Your task to perform on an android device: Open Chrome and go to settings Image 0: 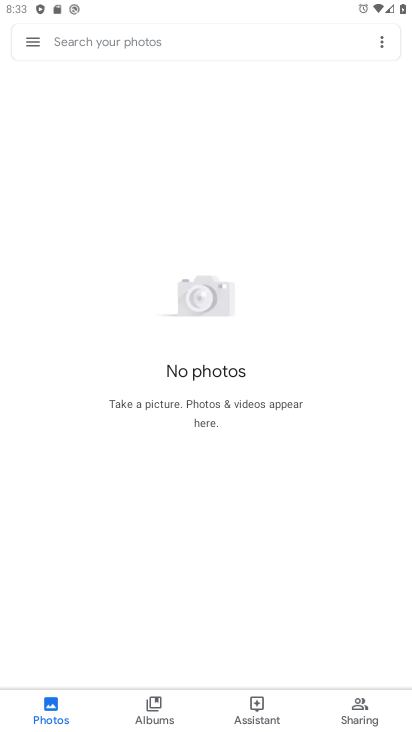
Step 0: press home button
Your task to perform on an android device: Open Chrome and go to settings Image 1: 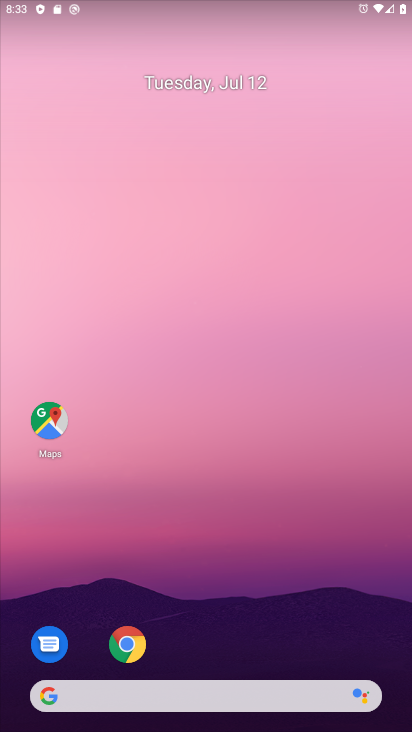
Step 1: click (128, 636)
Your task to perform on an android device: Open Chrome and go to settings Image 2: 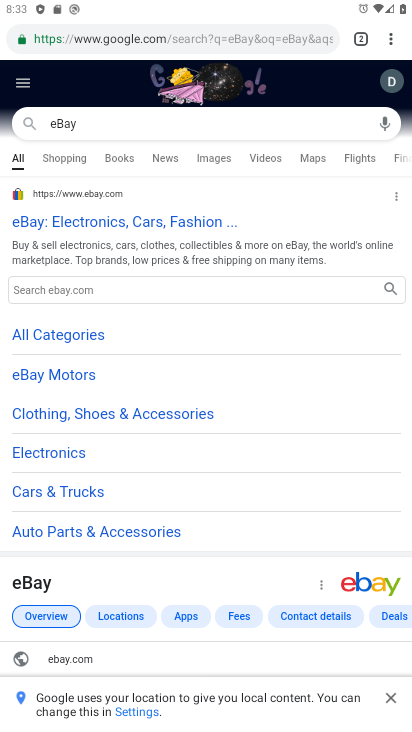
Step 2: click (390, 43)
Your task to perform on an android device: Open Chrome and go to settings Image 3: 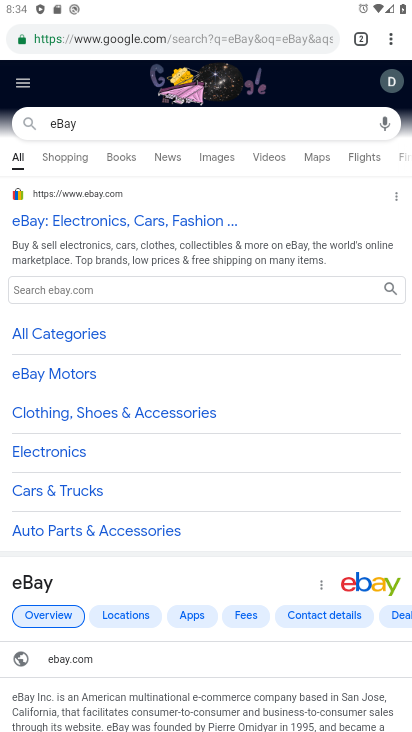
Step 3: click (390, 34)
Your task to perform on an android device: Open Chrome and go to settings Image 4: 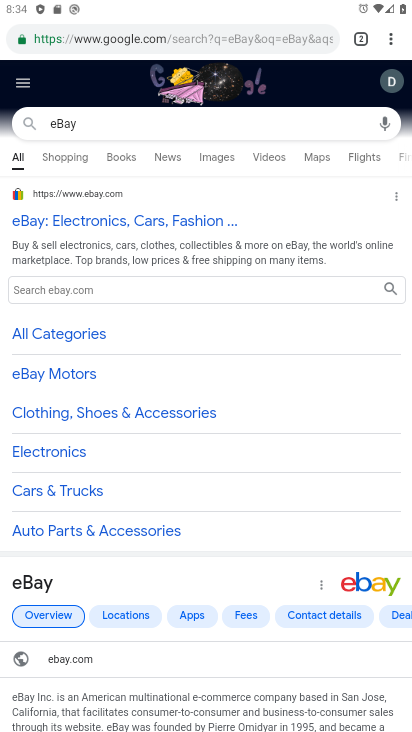
Step 4: click (389, 35)
Your task to perform on an android device: Open Chrome and go to settings Image 5: 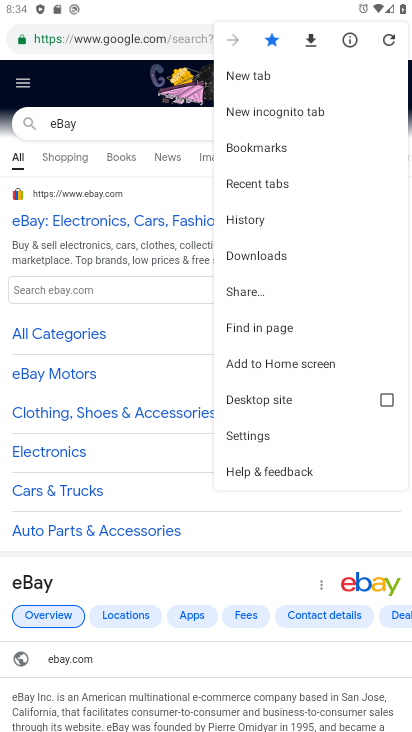
Step 5: click (253, 437)
Your task to perform on an android device: Open Chrome and go to settings Image 6: 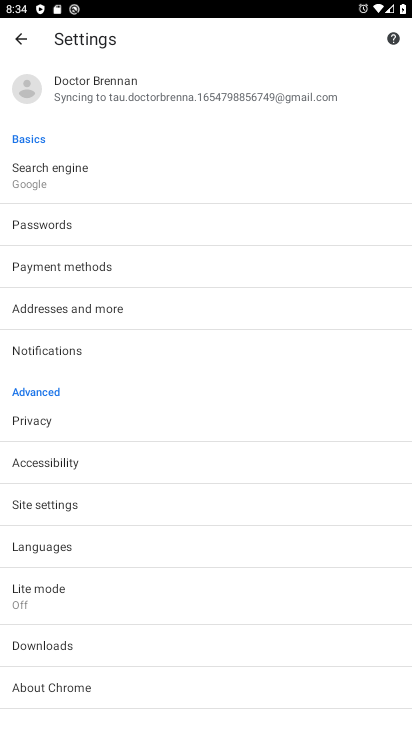
Step 6: task complete